Your task to perform on an android device: What time is it in Paris? Image 0: 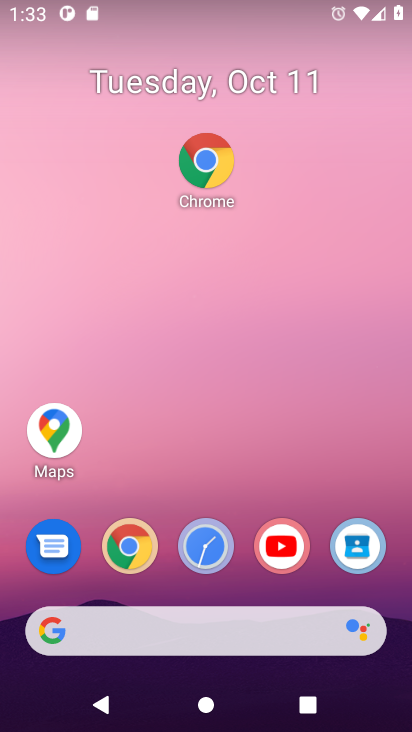
Step 0: click (212, 176)
Your task to perform on an android device: What time is it in Paris? Image 1: 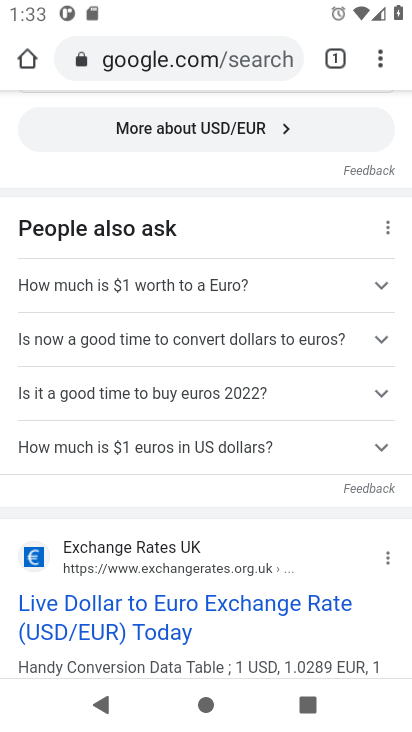
Step 1: click (227, 67)
Your task to perform on an android device: What time is it in Paris? Image 2: 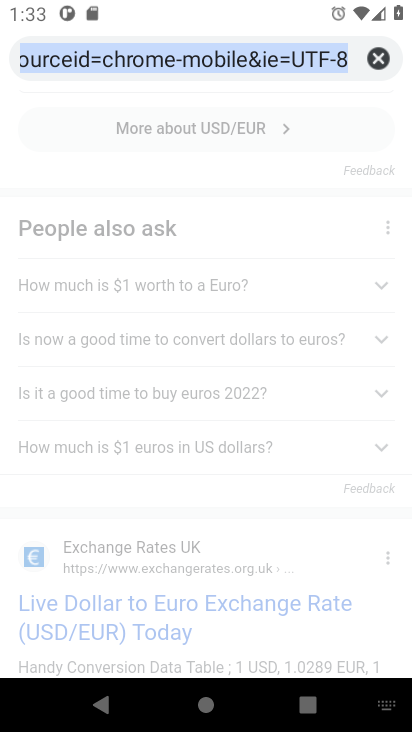
Step 2: type "time in Paris"
Your task to perform on an android device: What time is it in Paris? Image 3: 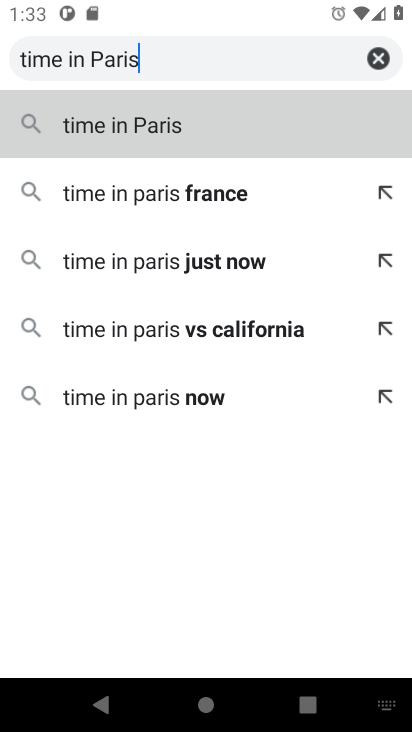
Step 3: press enter
Your task to perform on an android device: What time is it in Paris? Image 4: 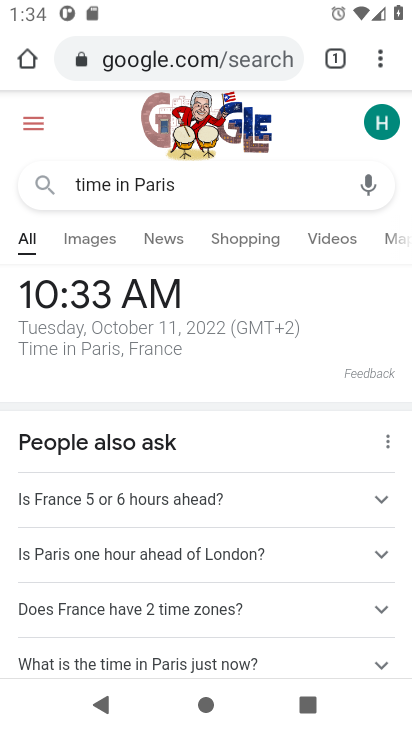
Step 4: task complete